Your task to perform on an android device: Search for 3d printed chess sets on Etsy. Image 0: 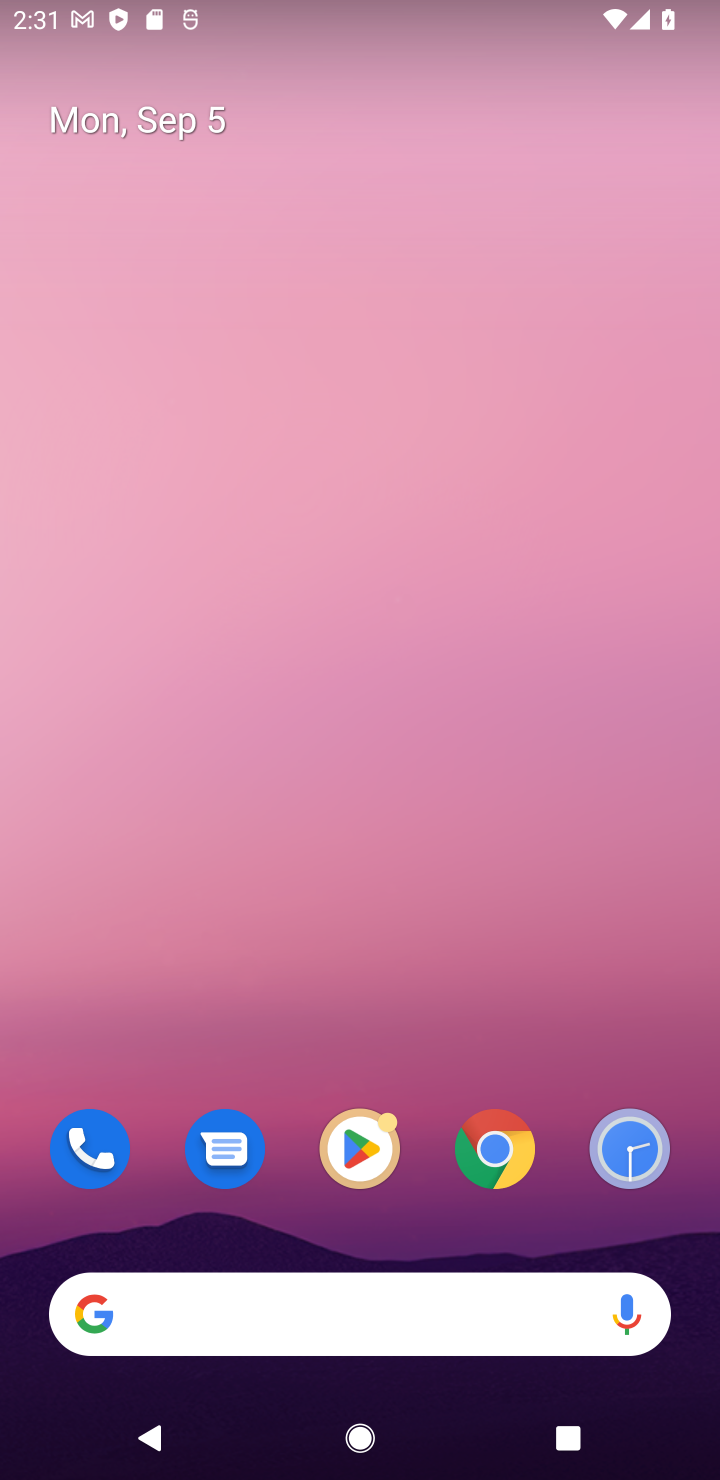
Step 0: click (517, 1173)
Your task to perform on an android device: Search for 3d printed chess sets on Etsy. Image 1: 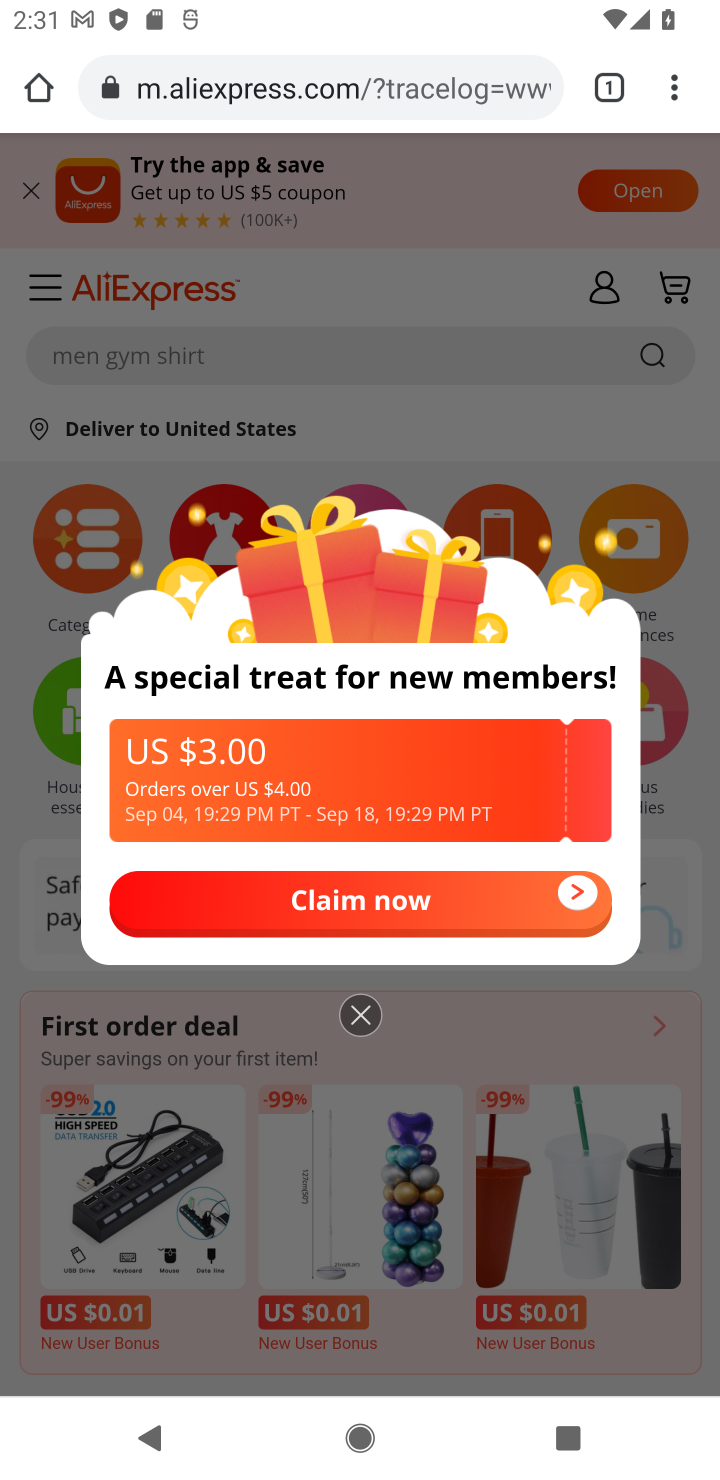
Step 1: click (242, 83)
Your task to perform on an android device: Search for 3d printed chess sets on Etsy. Image 2: 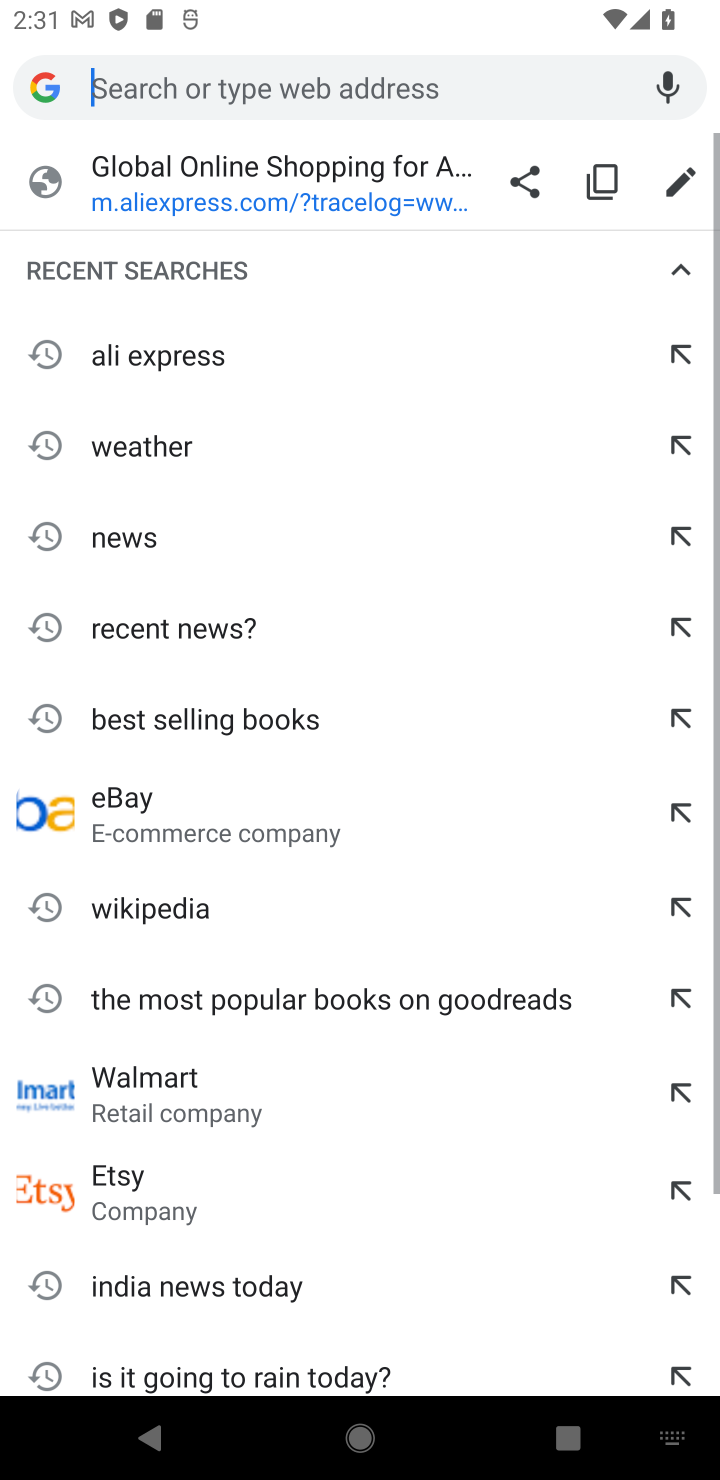
Step 2: type "etsy"
Your task to perform on an android device: Search for 3d printed chess sets on Etsy. Image 3: 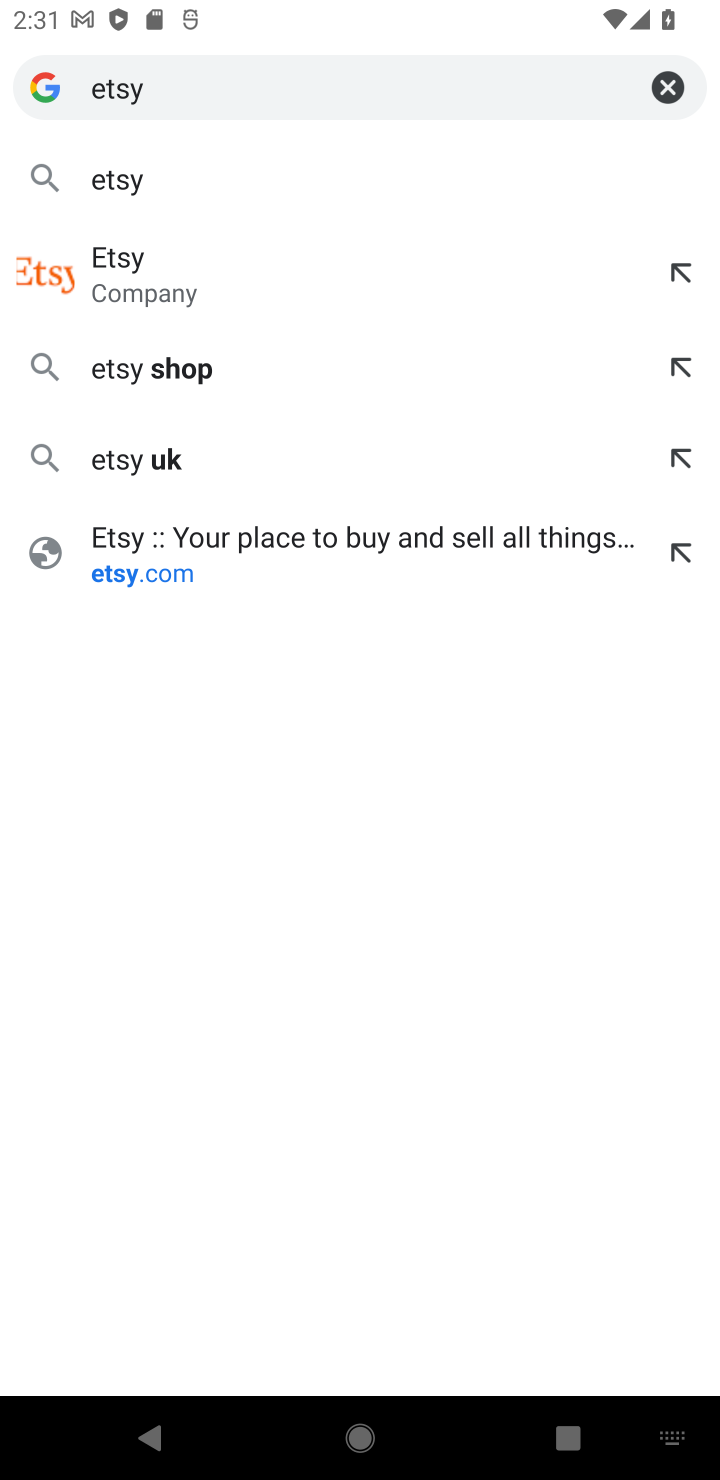
Step 3: click (128, 266)
Your task to perform on an android device: Search for 3d printed chess sets on Etsy. Image 4: 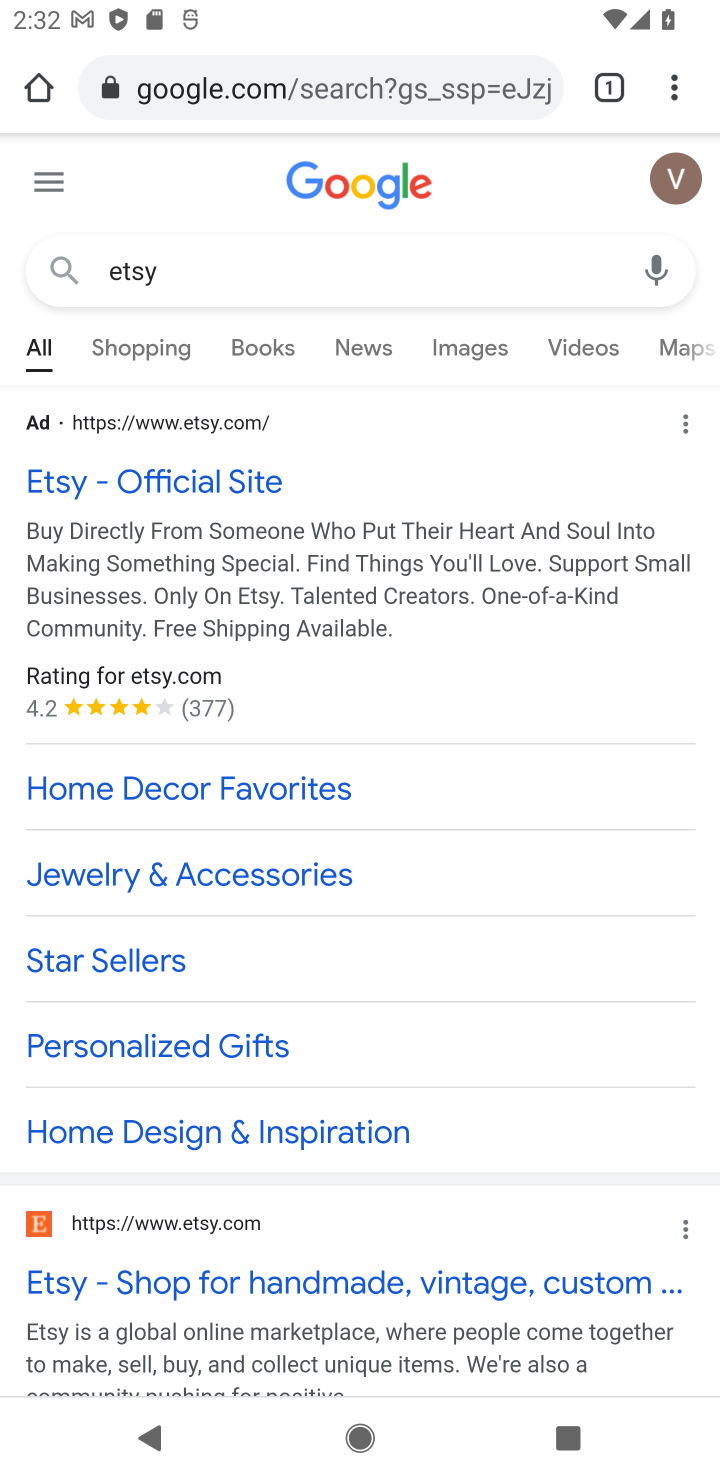
Step 4: click (210, 493)
Your task to perform on an android device: Search for 3d printed chess sets on Etsy. Image 5: 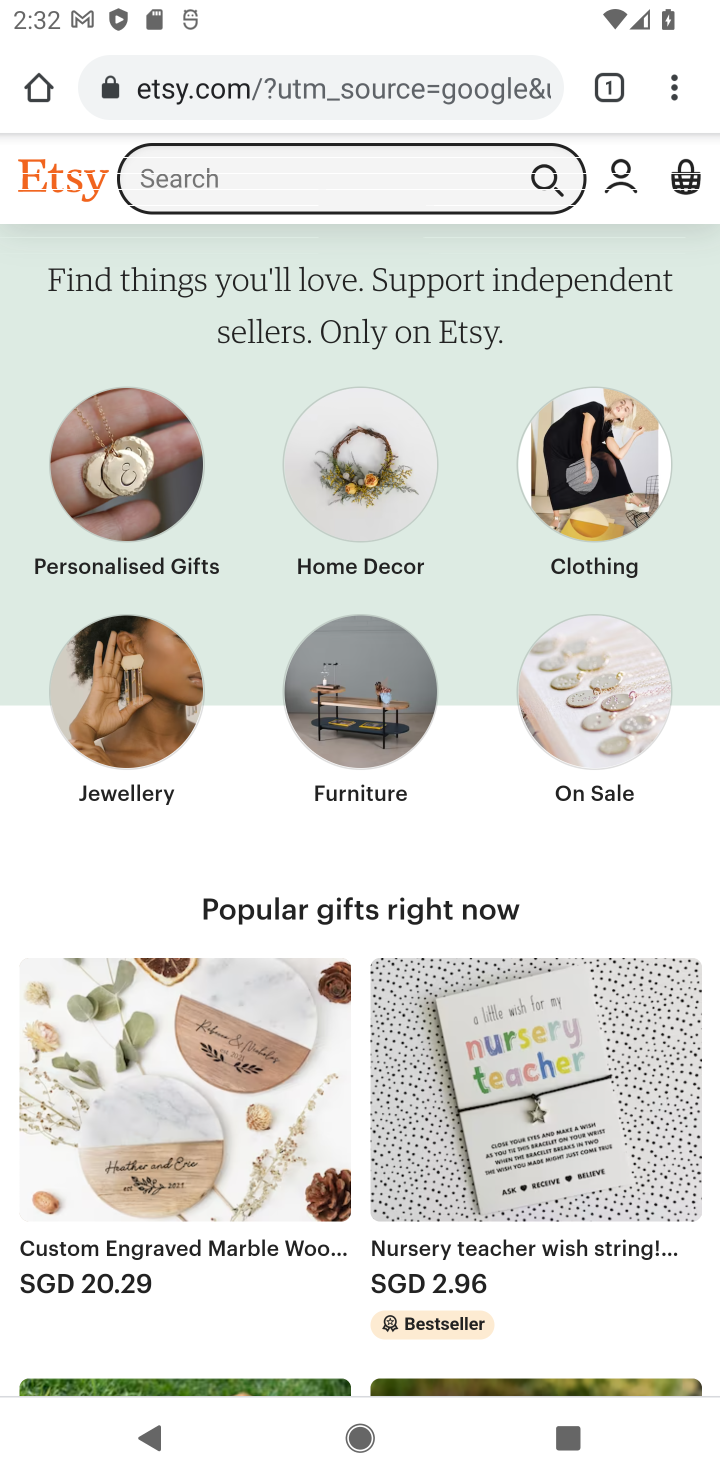
Step 5: click (370, 185)
Your task to perform on an android device: Search for 3d printed chess sets on Etsy. Image 6: 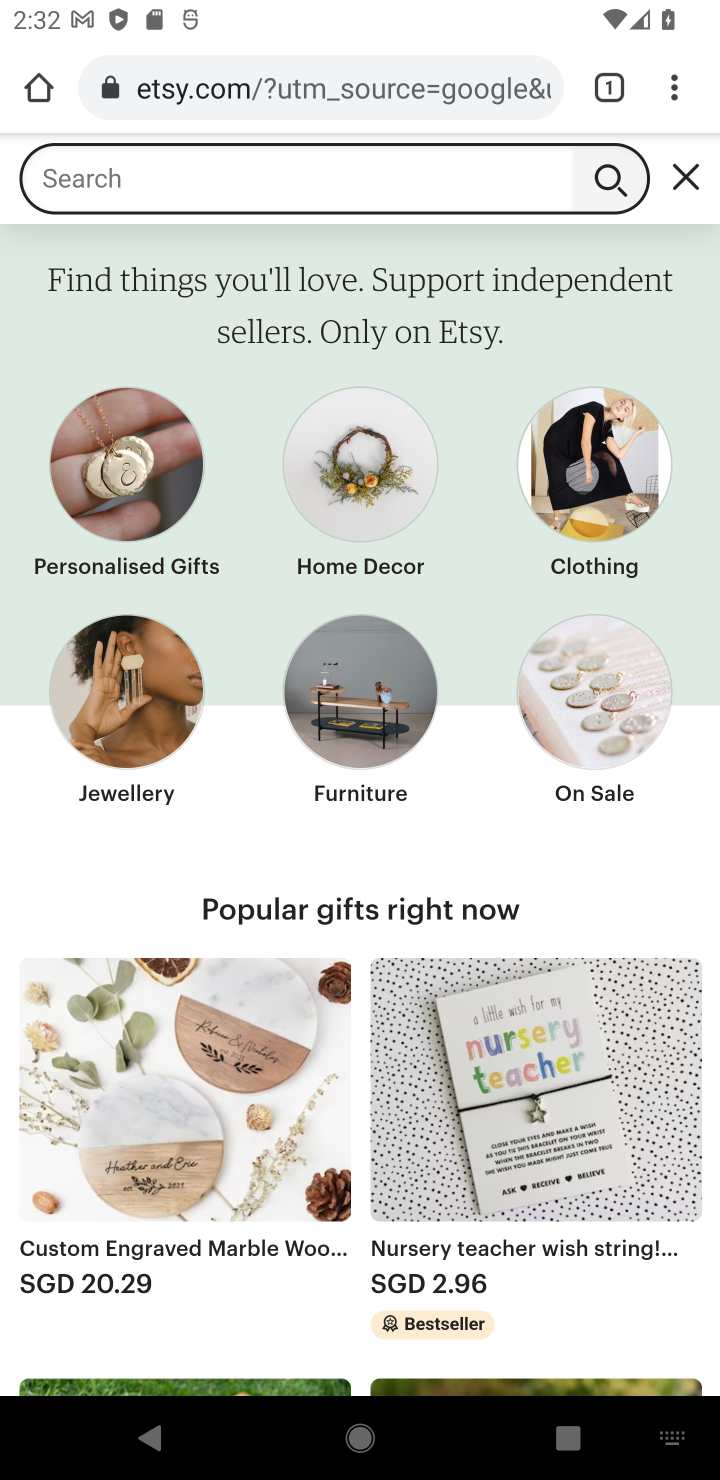
Step 6: type "3d printed chess sets"
Your task to perform on an android device: Search for 3d printed chess sets on Etsy. Image 7: 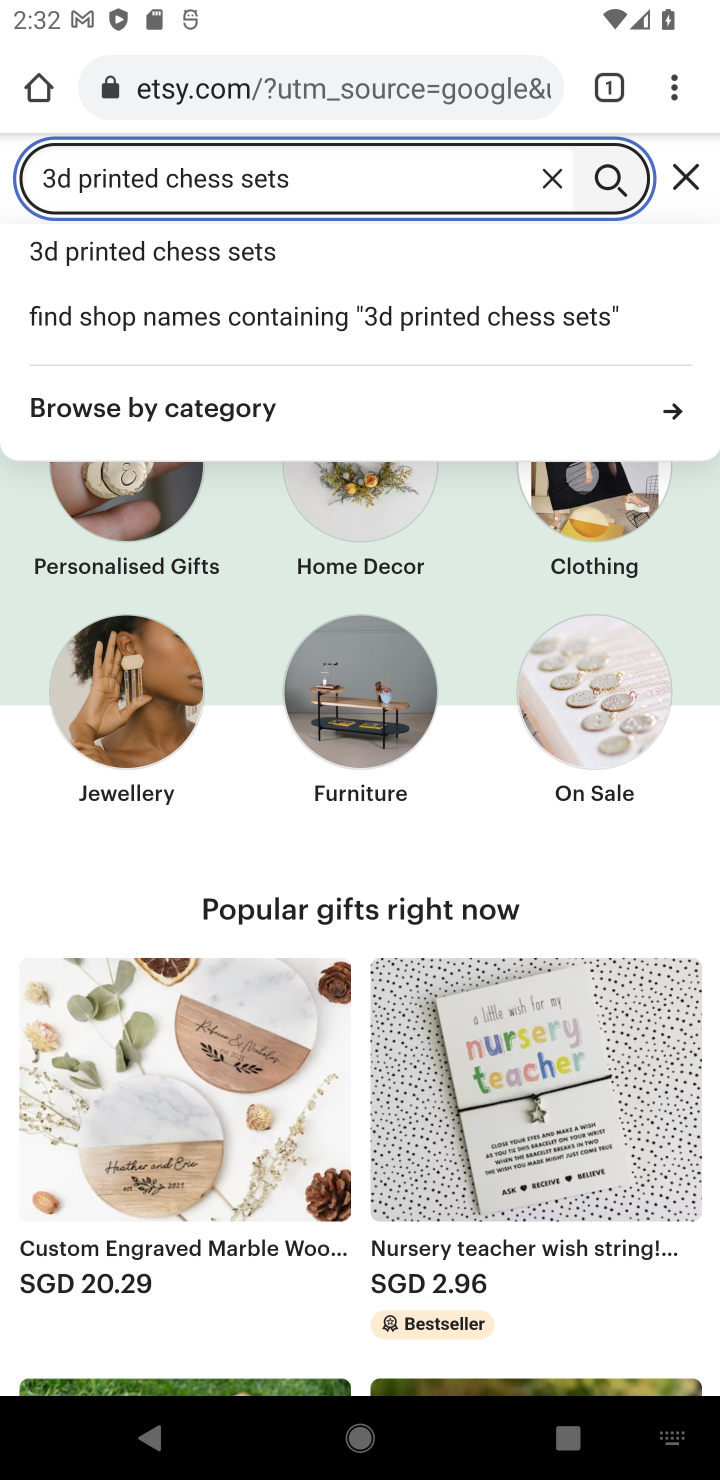
Step 7: click (396, 257)
Your task to perform on an android device: Search for 3d printed chess sets on Etsy. Image 8: 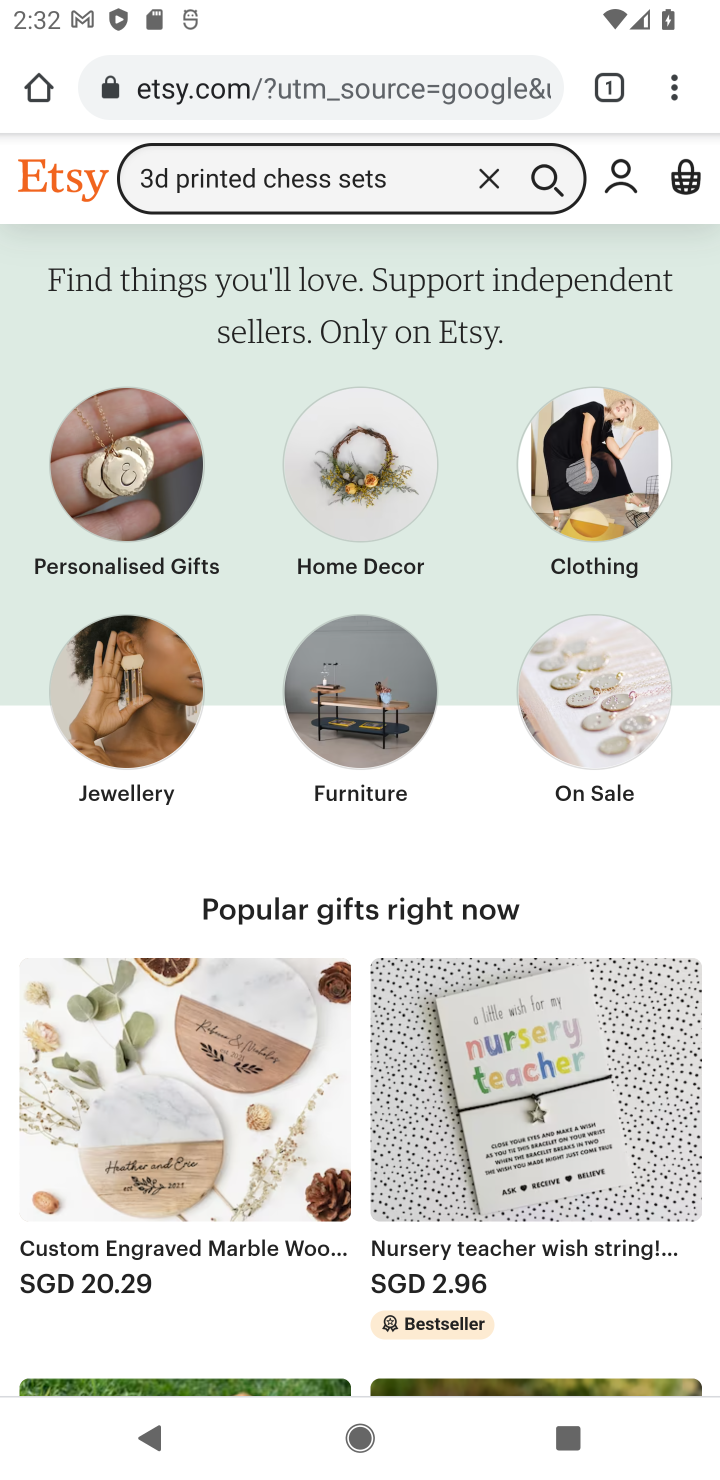
Step 8: click (546, 184)
Your task to perform on an android device: Search for 3d printed chess sets on Etsy. Image 9: 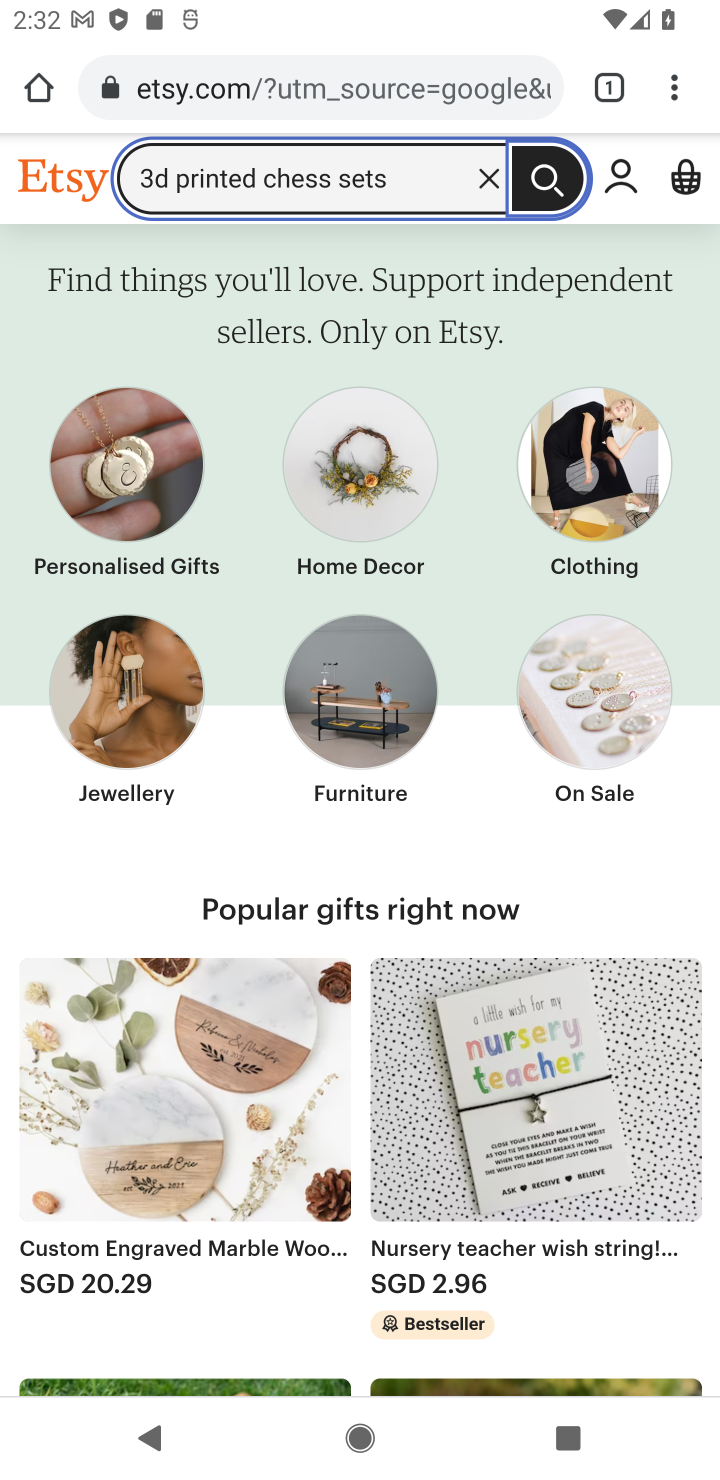
Step 9: click (335, 193)
Your task to perform on an android device: Search for 3d printed chess sets on Etsy. Image 10: 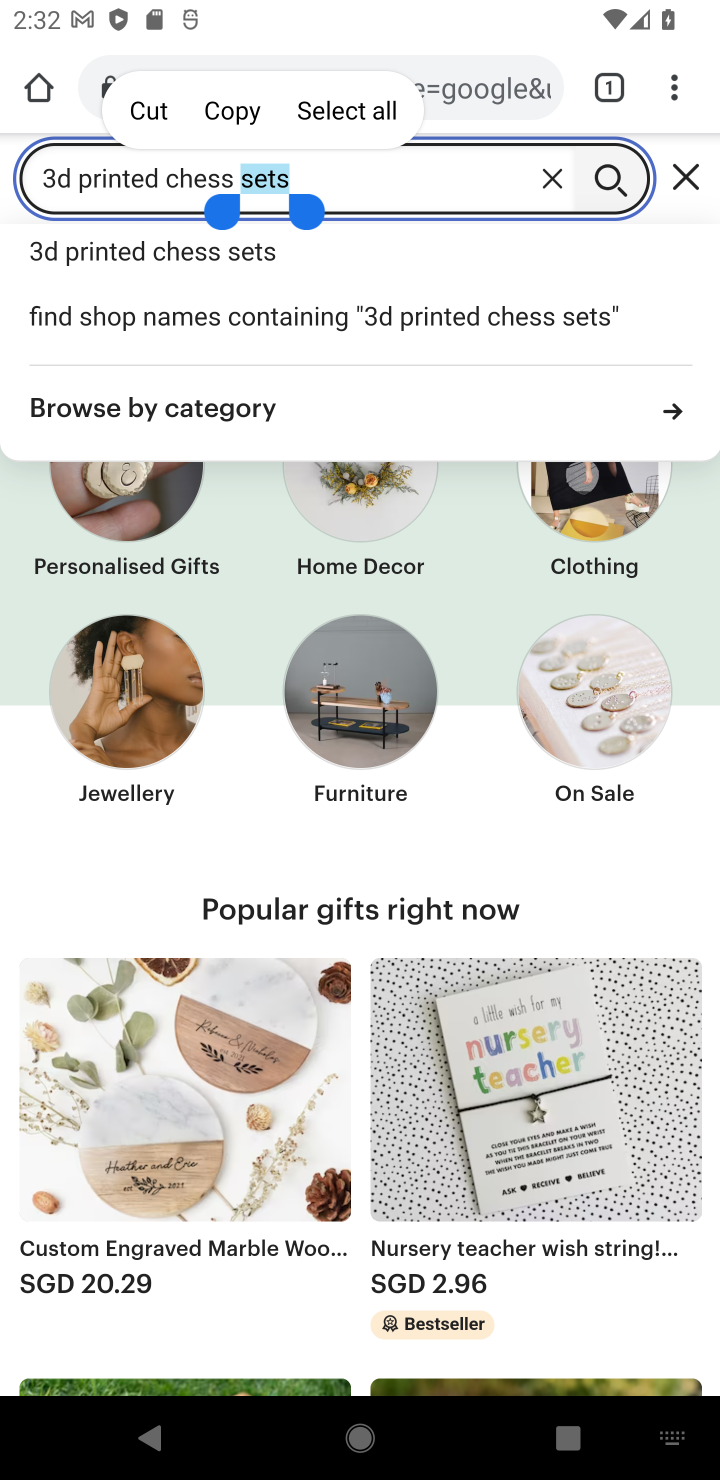
Step 10: click (411, 190)
Your task to perform on an android device: Search for 3d printed chess sets on Etsy. Image 11: 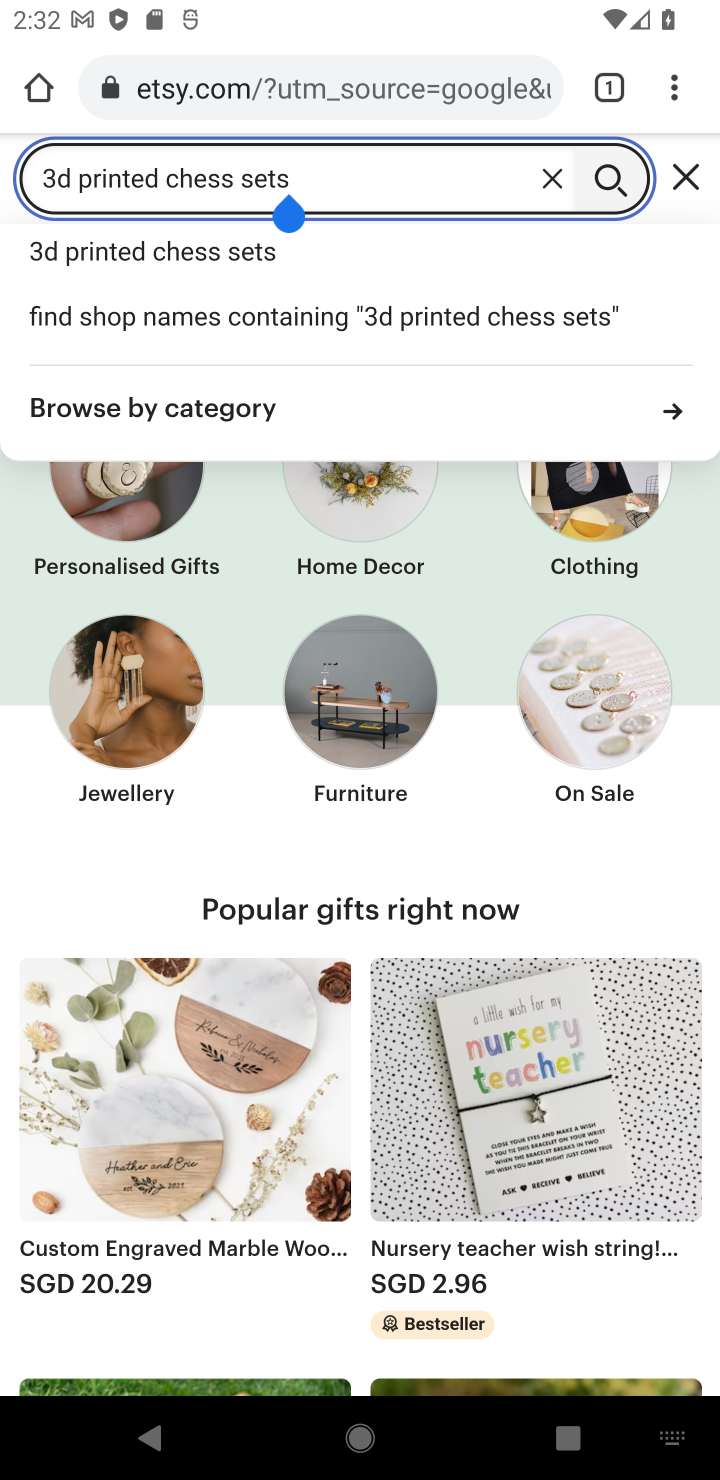
Step 11: click (620, 179)
Your task to perform on an android device: Search for 3d printed chess sets on Etsy. Image 12: 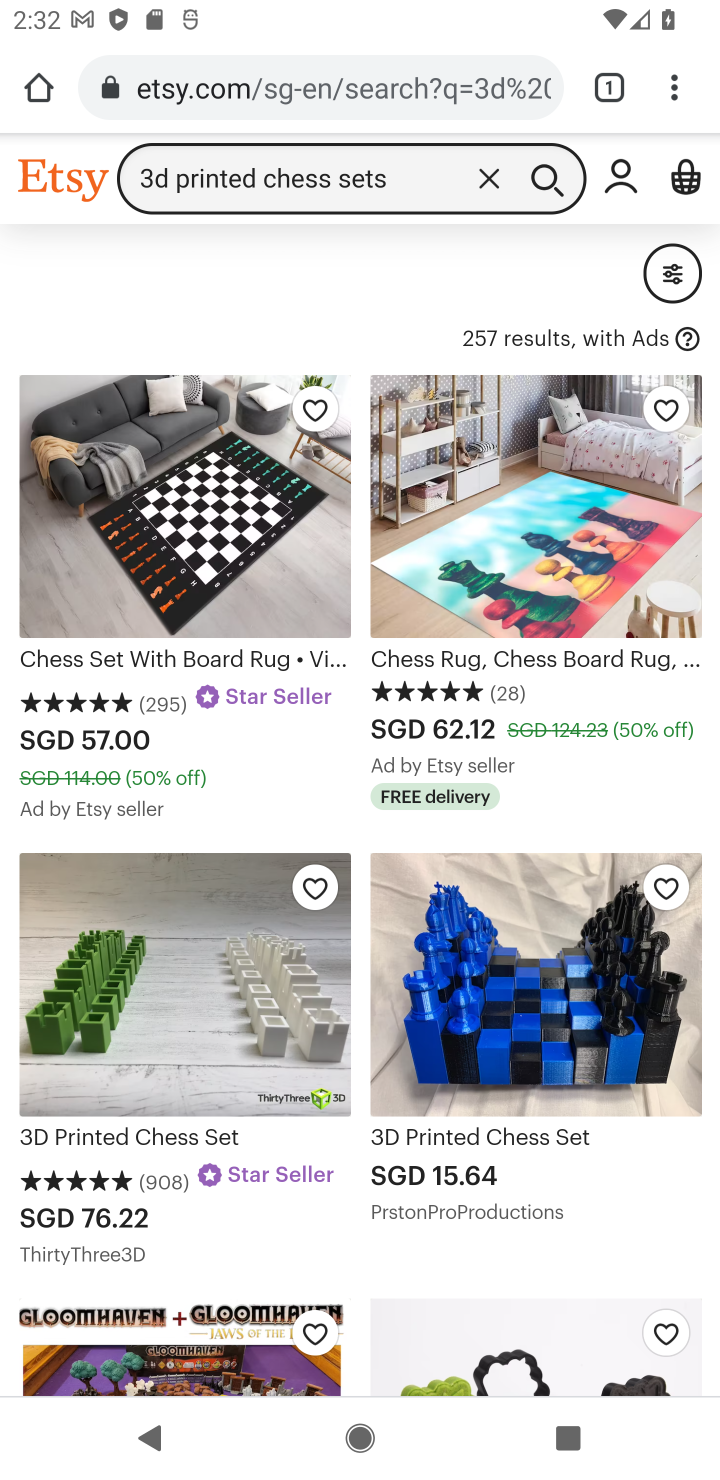
Step 12: task complete